Your task to perform on an android device: Do I have any events today? Image 0: 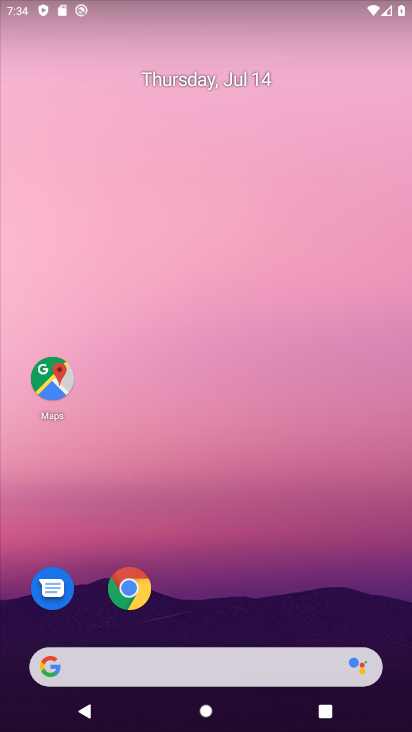
Step 0: drag from (19, 670) to (246, 131)
Your task to perform on an android device: Do I have any events today? Image 1: 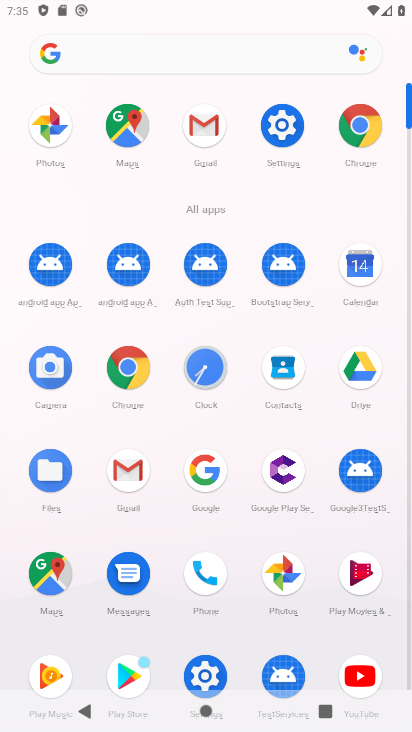
Step 1: click (358, 284)
Your task to perform on an android device: Do I have any events today? Image 2: 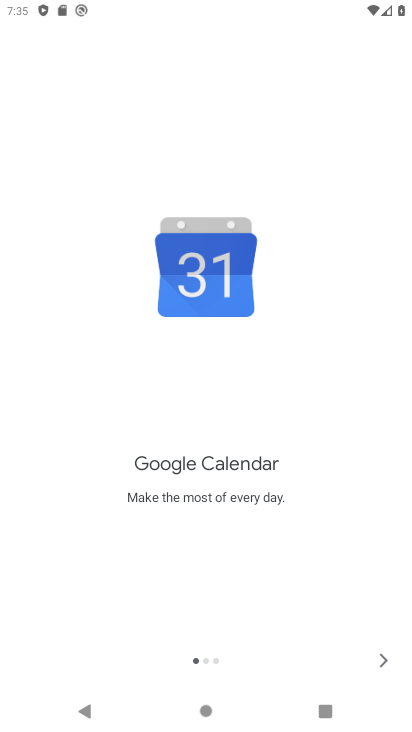
Step 2: click (386, 666)
Your task to perform on an android device: Do I have any events today? Image 3: 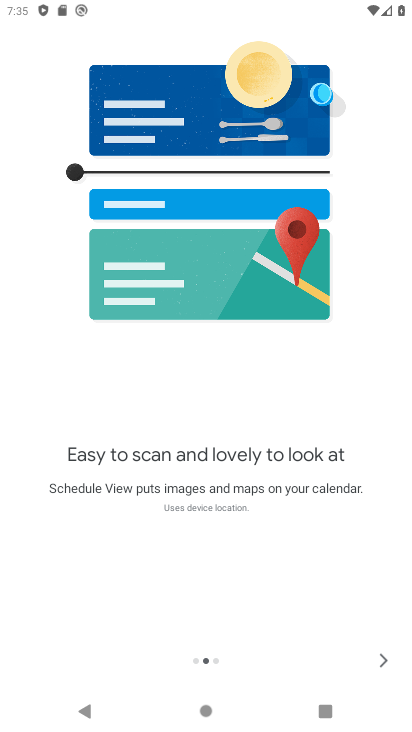
Step 3: click (379, 655)
Your task to perform on an android device: Do I have any events today? Image 4: 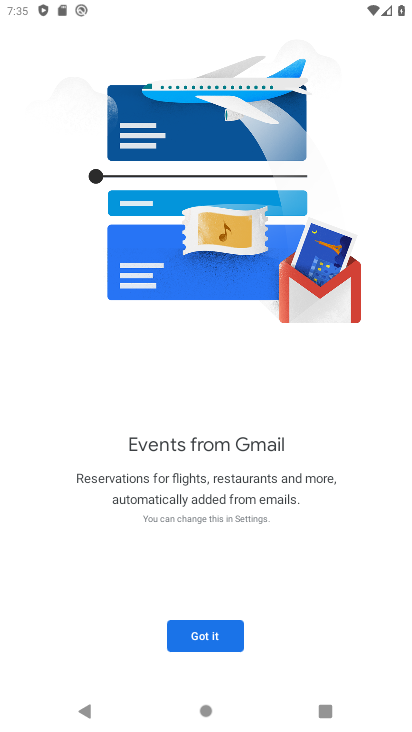
Step 4: click (205, 628)
Your task to perform on an android device: Do I have any events today? Image 5: 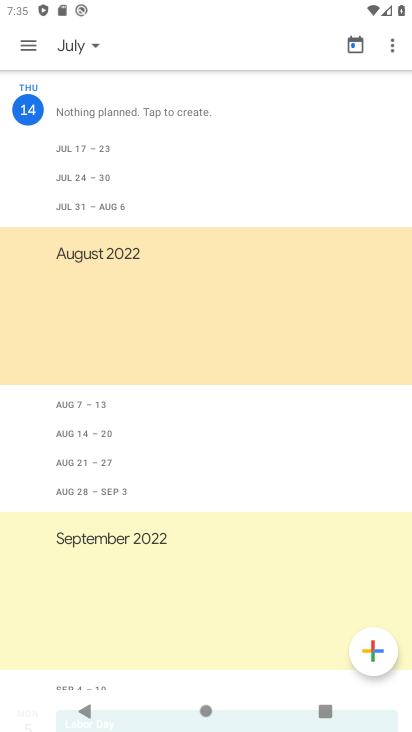
Step 5: click (93, 47)
Your task to perform on an android device: Do I have any events today? Image 6: 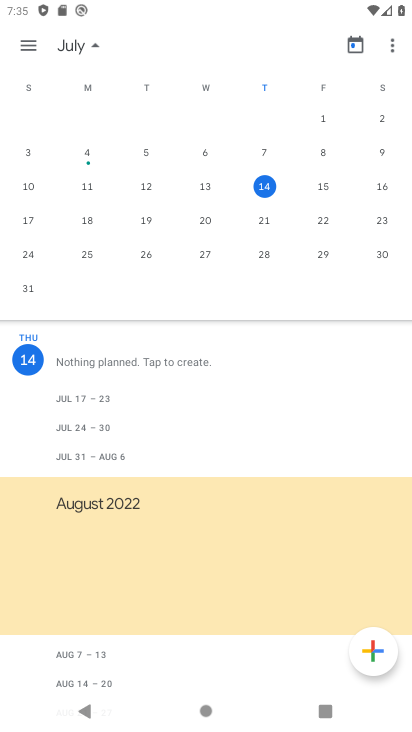
Step 6: task complete